Your task to perform on an android device: turn smart compose on in the gmail app Image 0: 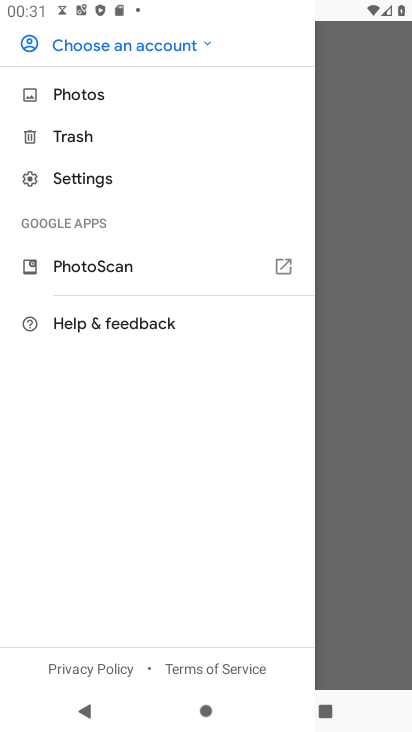
Step 0: press back button
Your task to perform on an android device: turn smart compose on in the gmail app Image 1: 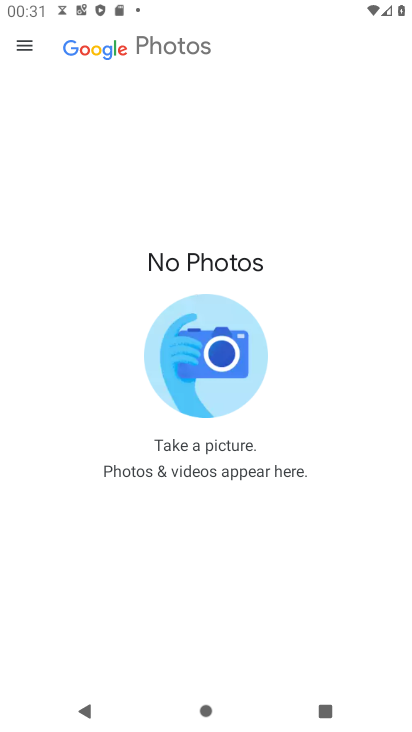
Step 1: press back button
Your task to perform on an android device: turn smart compose on in the gmail app Image 2: 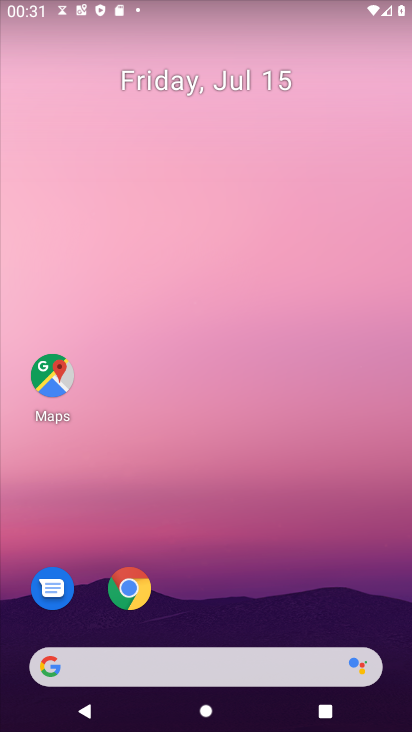
Step 2: drag from (248, 554) to (303, 50)
Your task to perform on an android device: turn smart compose on in the gmail app Image 3: 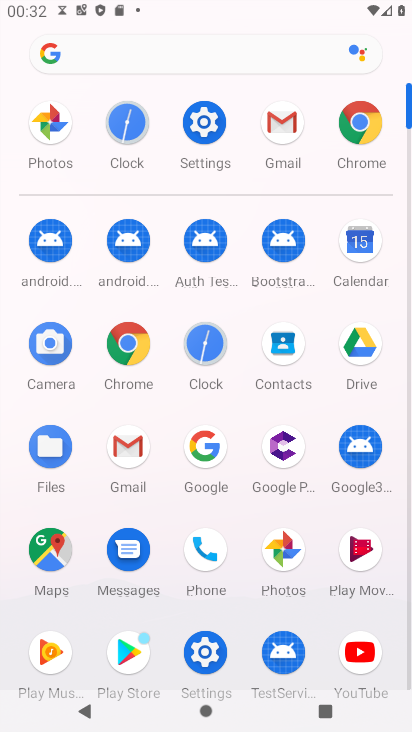
Step 3: click (119, 454)
Your task to perform on an android device: turn smart compose on in the gmail app Image 4: 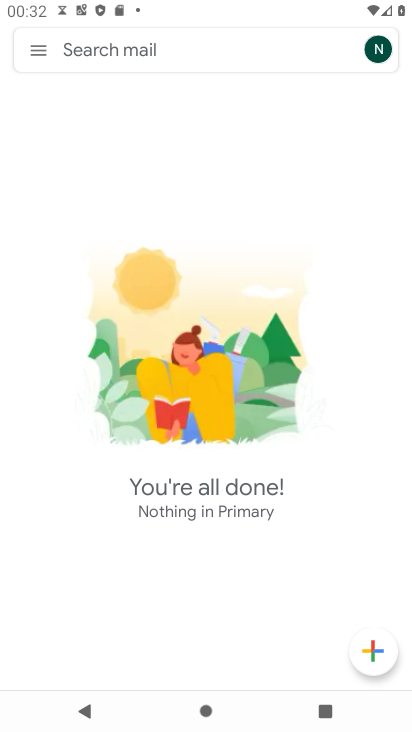
Step 4: click (35, 48)
Your task to perform on an android device: turn smart compose on in the gmail app Image 5: 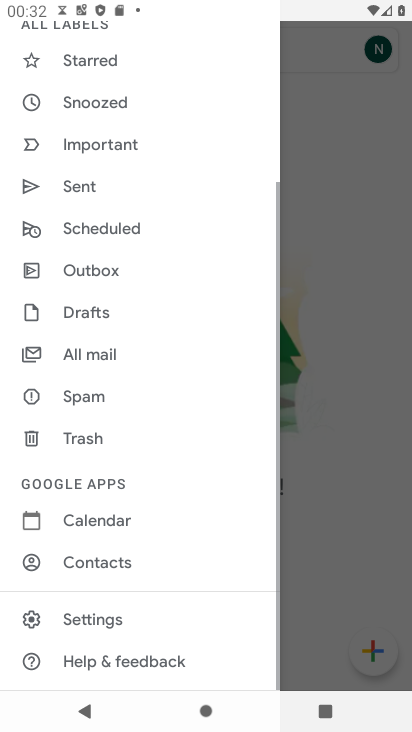
Step 5: click (77, 606)
Your task to perform on an android device: turn smart compose on in the gmail app Image 6: 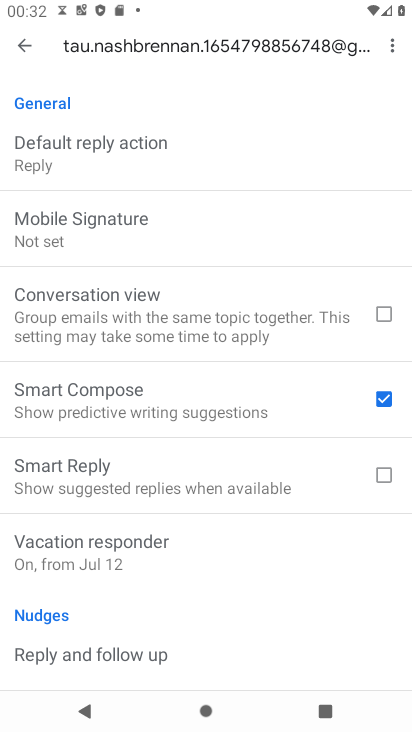
Step 6: task complete